Your task to perform on an android device: Set the phone to "Do not disturb". Image 0: 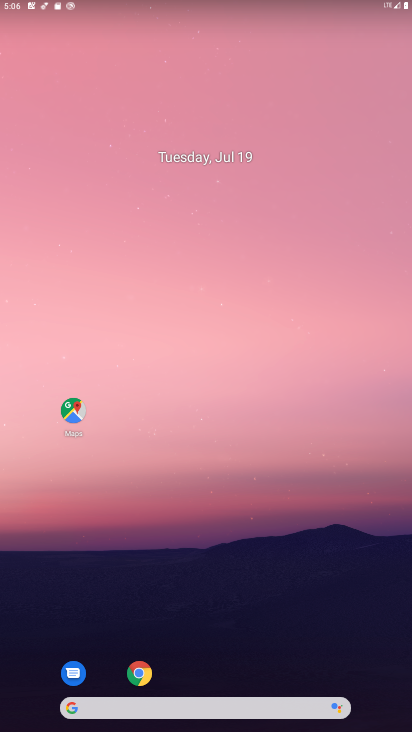
Step 0: press home button
Your task to perform on an android device: Set the phone to "Do not disturb". Image 1: 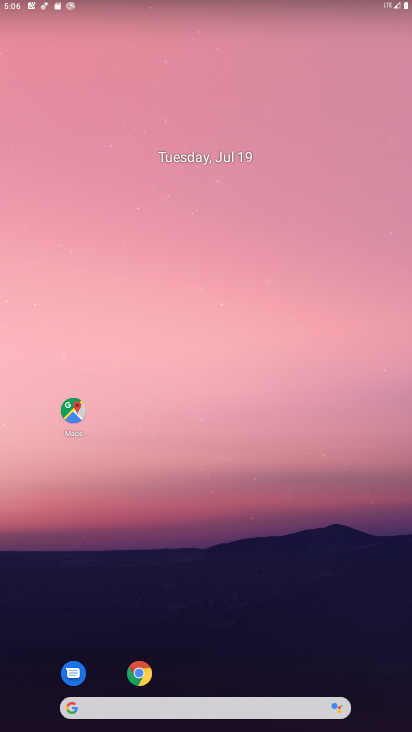
Step 1: drag from (189, 4) to (215, 517)
Your task to perform on an android device: Set the phone to "Do not disturb". Image 2: 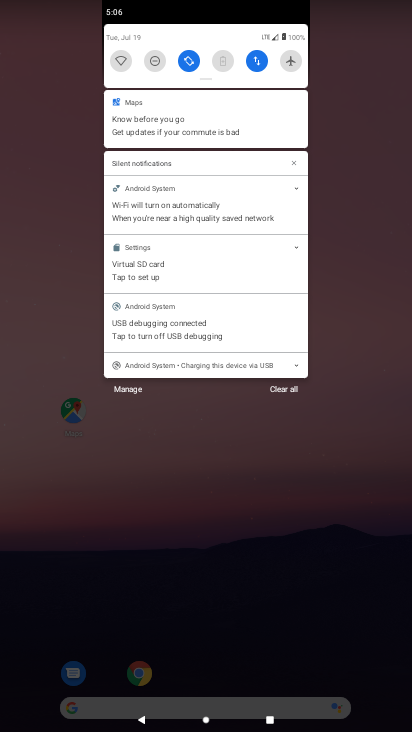
Step 2: click (154, 60)
Your task to perform on an android device: Set the phone to "Do not disturb". Image 3: 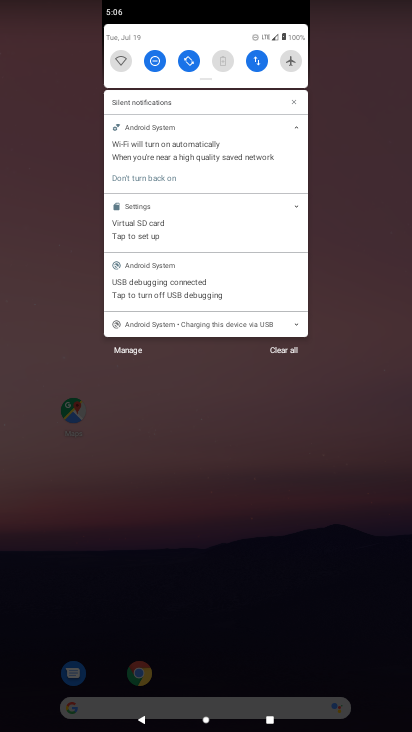
Step 3: task complete